Your task to perform on an android device: check the backup settings in the google photos Image 0: 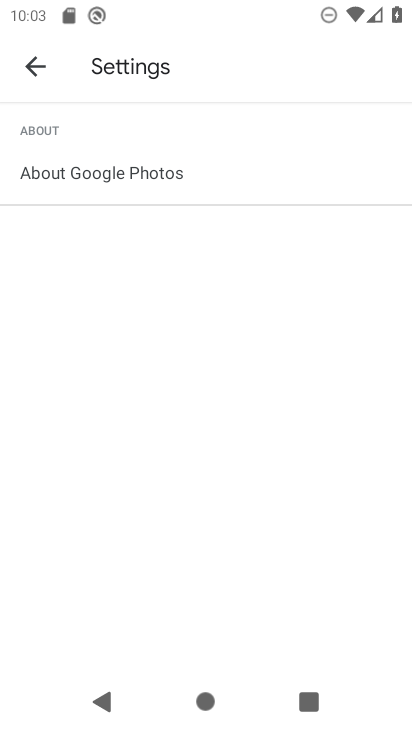
Step 0: press home button
Your task to perform on an android device: check the backup settings in the google photos Image 1: 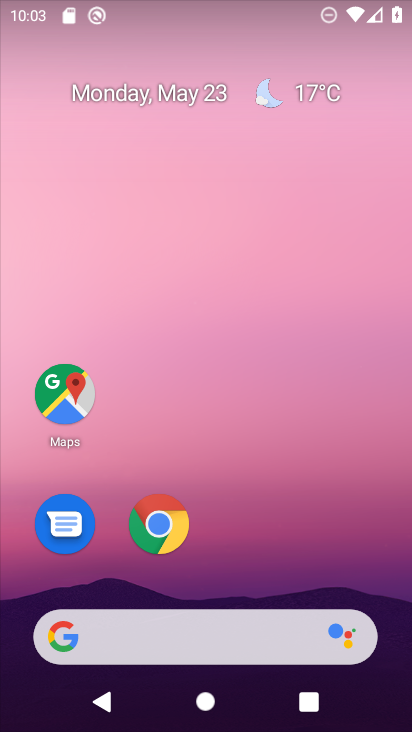
Step 1: drag from (234, 566) to (237, 139)
Your task to perform on an android device: check the backup settings in the google photos Image 2: 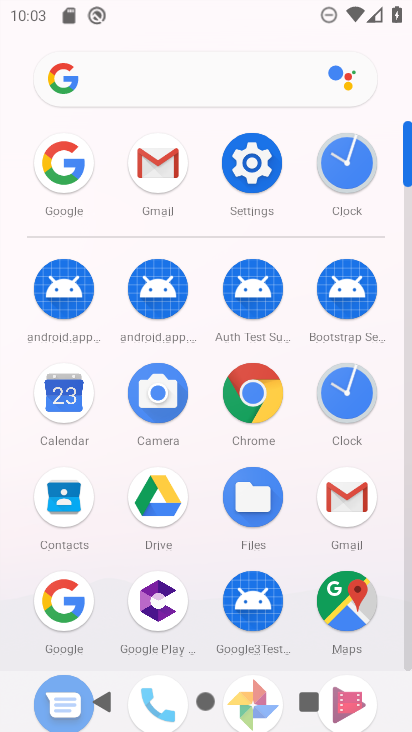
Step 2: drag from (212, 584) to (203, 237)
Your task to perform on an android device: check the backup settings in the google photos Image 3: 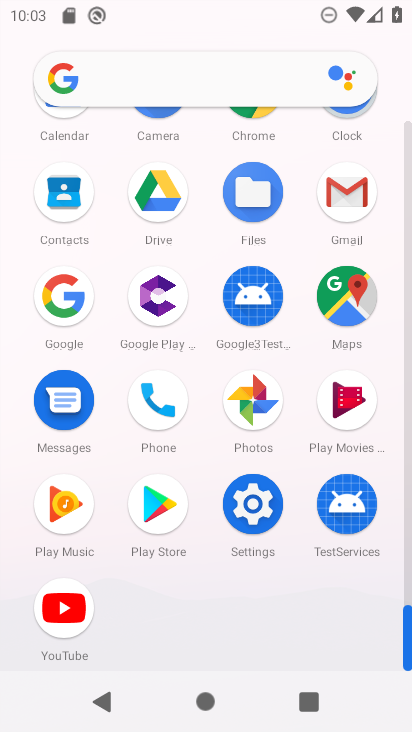
Step 3: click (244, 424)
Your task to perform on an android device: check the backup settings in the google photos Image 4: 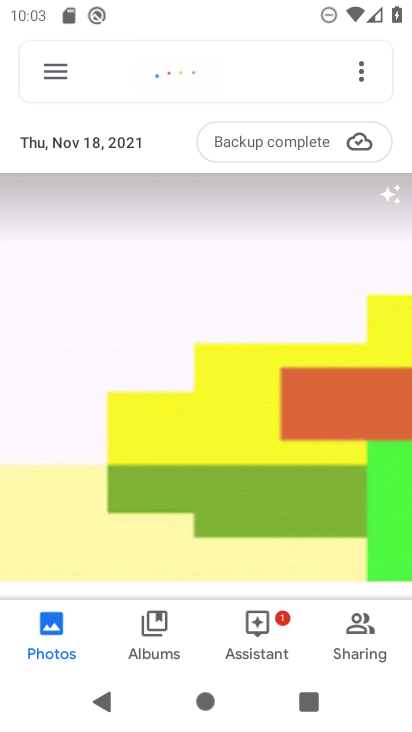
Step 4: click (66, 74)
Your task to perform on an android device: check the backup settings in the google photos Image 5: 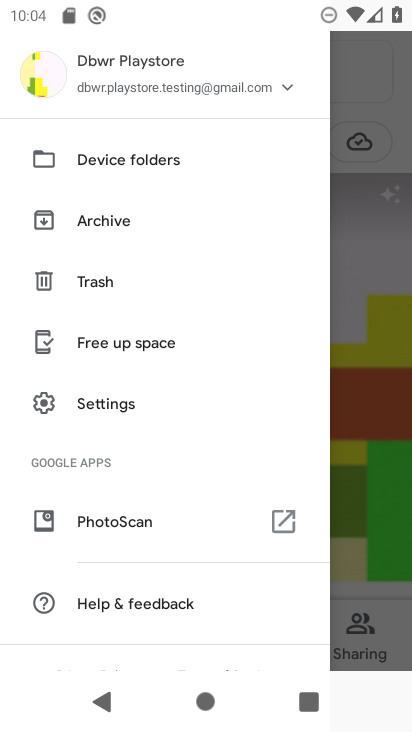
Step 5: click (101, 396)
Your task to perform on an android device: check the backup settings in the google photos Image 6: 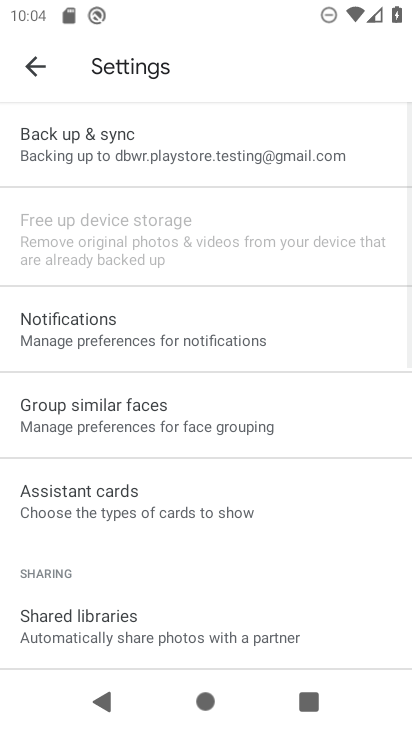
Step 6: click (107, 160)
Your task to perform on an android device: check the backup settings in the google photos Image 7: 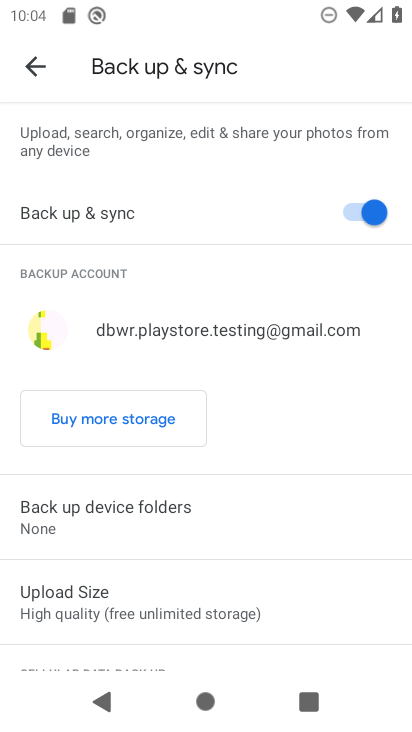
Step 7: task complete